Your task to perform on an android device: See recent photos Image 0: 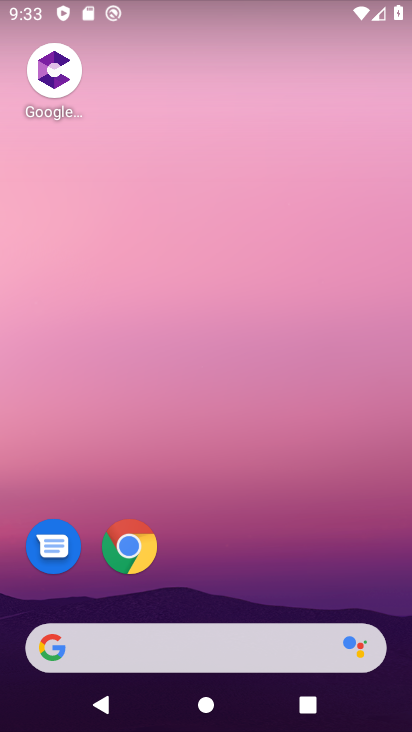
Step 0: drag from (216, 572) to (247, 51)
Your task to perform on an android device: See recent photos Image 1: 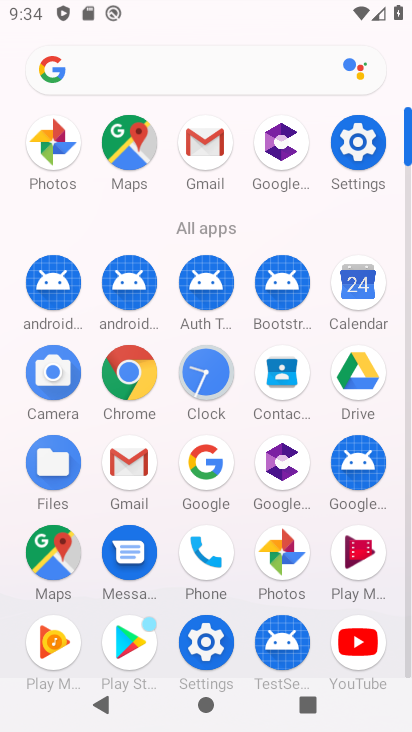
Step 1: click (55, 140)
Your task to perform on an android device: See recent photos Image 2: 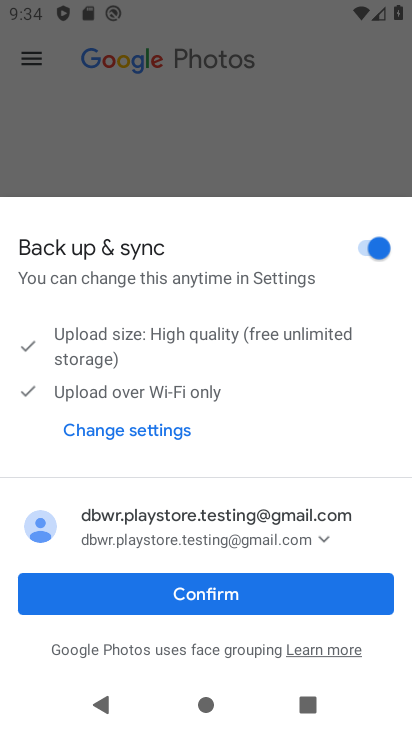
Step 2: click (220, 590)
Your task to perform on an android device: See recent photos Image 3: 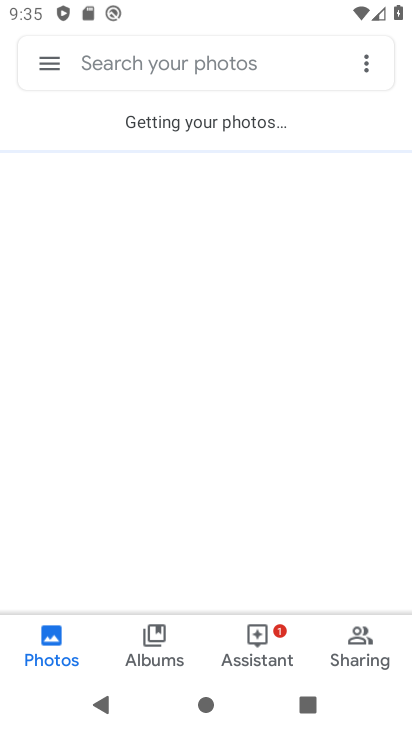
Step 3: task complete